Your task to perform on an android device: find snoozed emails in the gmail app Image 0: 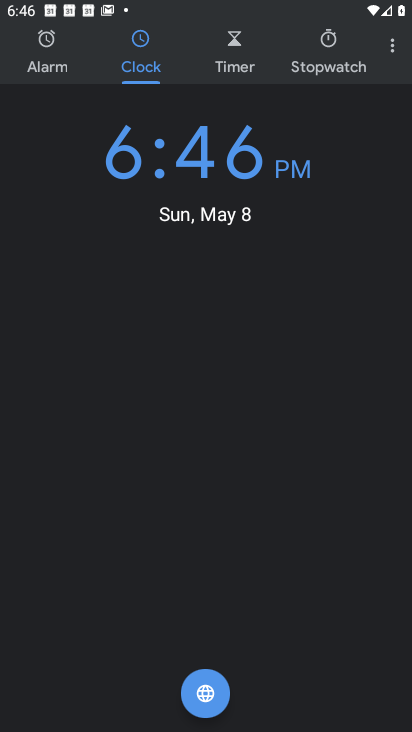
Step 0: press home button
Your task to perform on an android device: find snoozed emails in the gmail app Image 1: 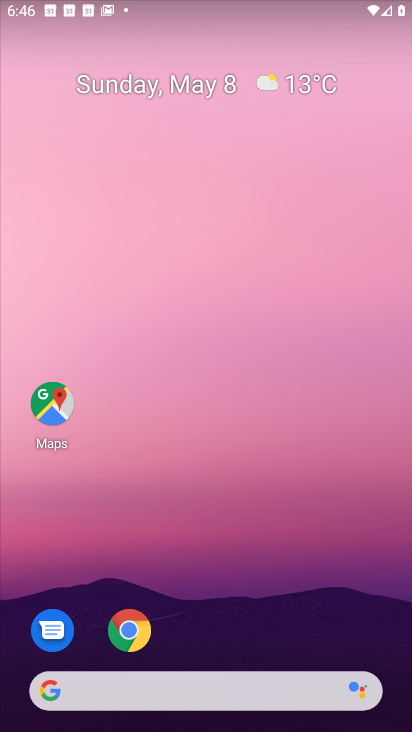
Step 1: drag from (280, 595) to (199, 201)
Your task to perform on an android device: find snoozed emails in the gmail app Image 2: 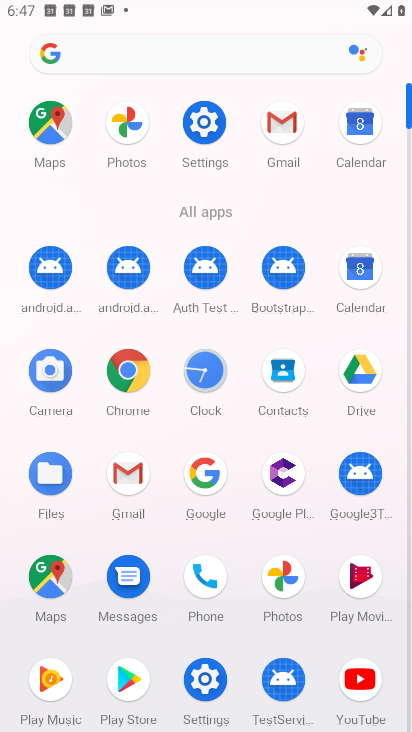
Step 2: click (283, 118)
Your task to perform on an android device: find snoozed emails in the gmail app Image 3: 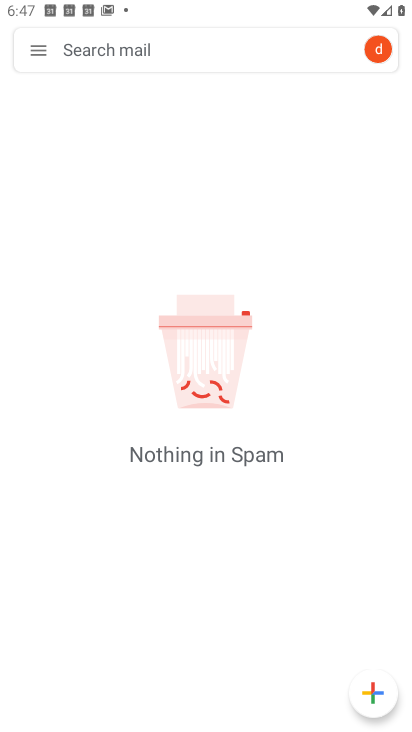
Step 3: click (43, 46)
Your task to perform on an android device: find snoozed emails in the gmail app Image 4: 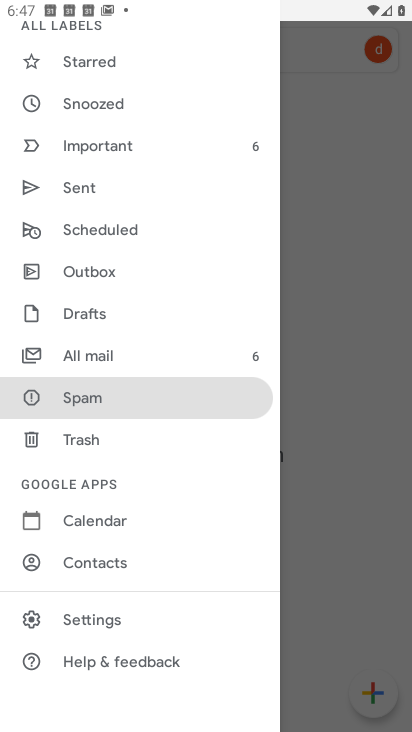
Step 4: click (90, 100)
Your task to perform on an android device: find snoozed emails in the gmail app Image 5: 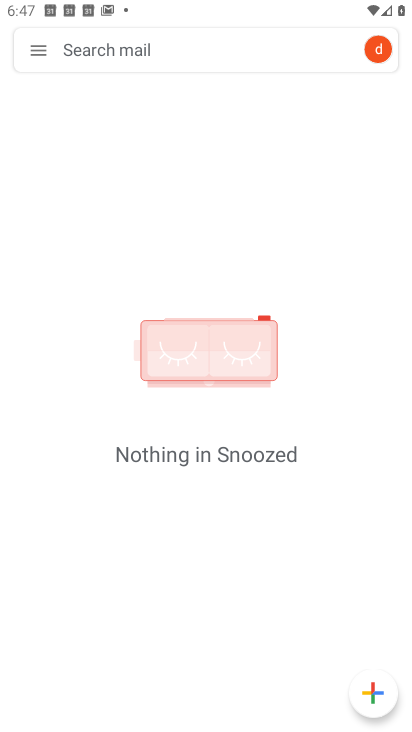
Step 5: task complete